Your task to perform on an android device: Show me recent news Image 0: 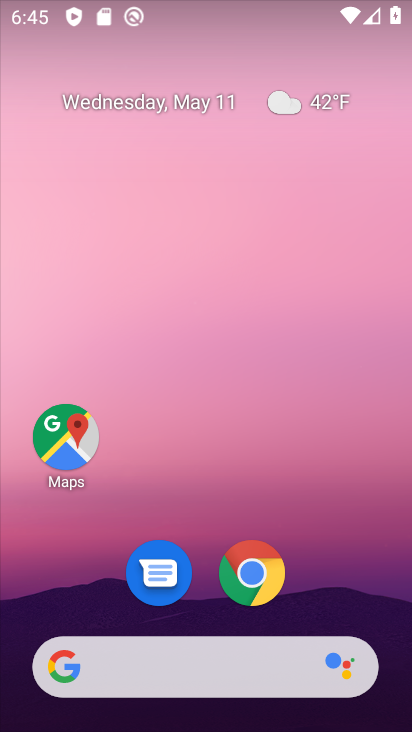
Step 0: drag from (321, 606) to (299, 267)
Your task to perform on an android device: Show me recent news Image 1: 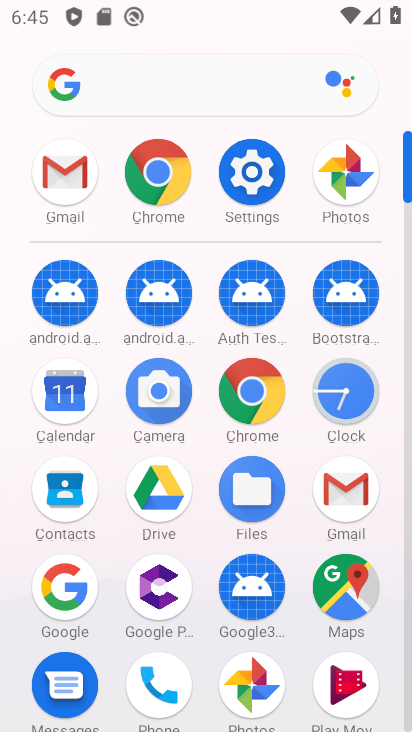
Step 1: click (70, 602)
Your task to perform on an android device: Show me recent news Image 2: 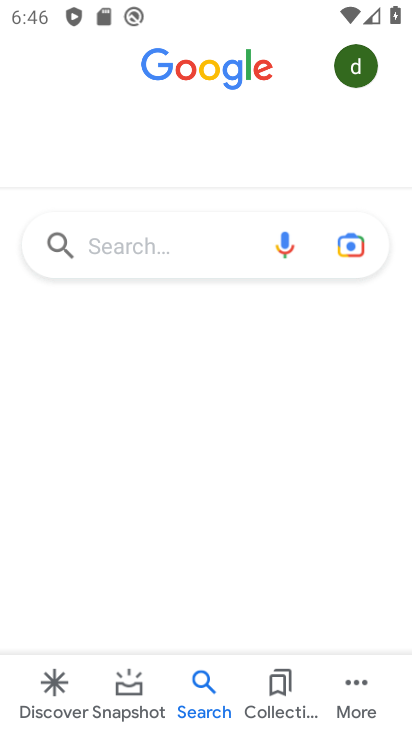
Step 2: click (135, 248)
Your task to perform on an android device: Show me recent news Image 3: 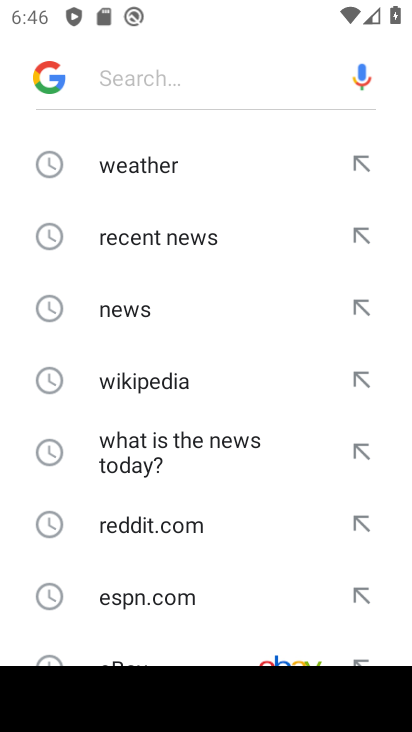
Step 3: click (141, 241)
Your task to perform on an android device: Show me recent news Image 4: 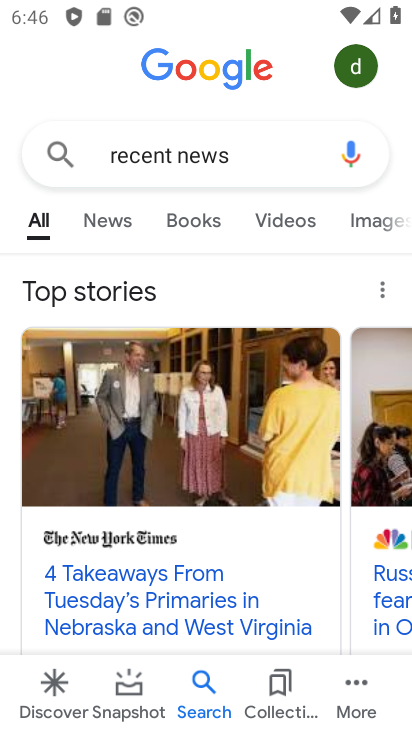
Step 4: task complete